Your task to perform on an android device: move a message to another label in the gmail app Image 0: 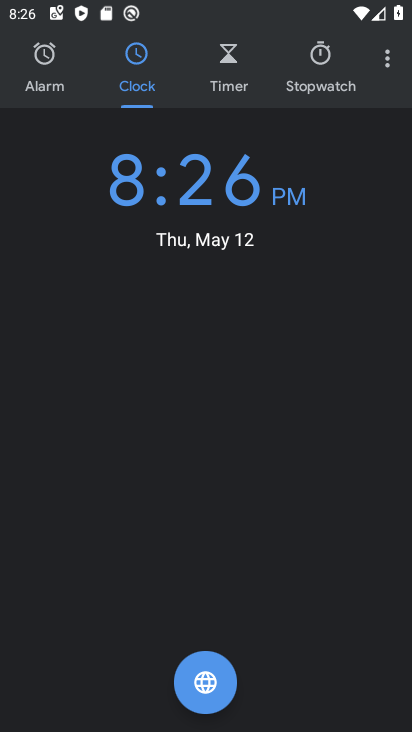
Step 0: press home button
Your task to perform on an android device: move a message to another label in the gmail app Image 1: 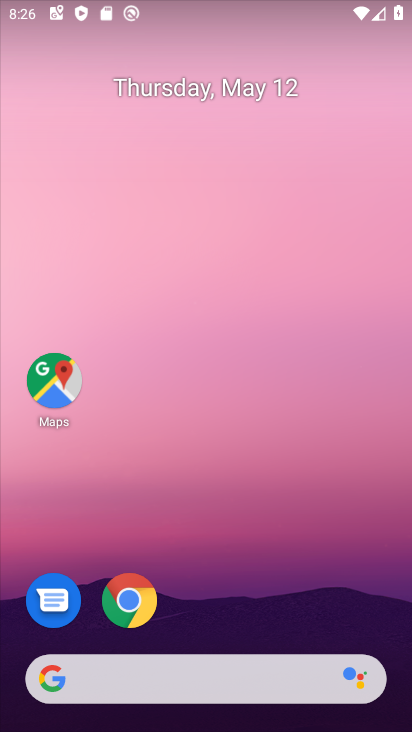
Step 1: drag from (294, 651) to (199, 213)
Your task to perform on an android device: move a message to another label in the gmail app Image 2: 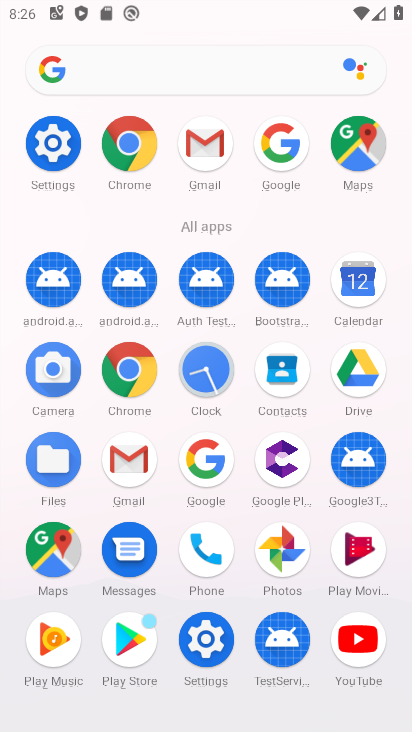
Step 2: click (213, 186)
Your task to perform on an android device: move a message to another label in the gmail app Image 3: 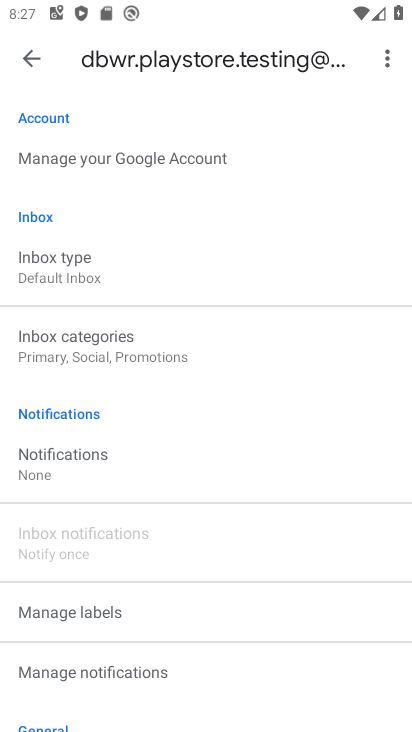
Step 3: click (37, 59)
Your task to perform on an android device: move a message to another label in the gmail app Image 4: 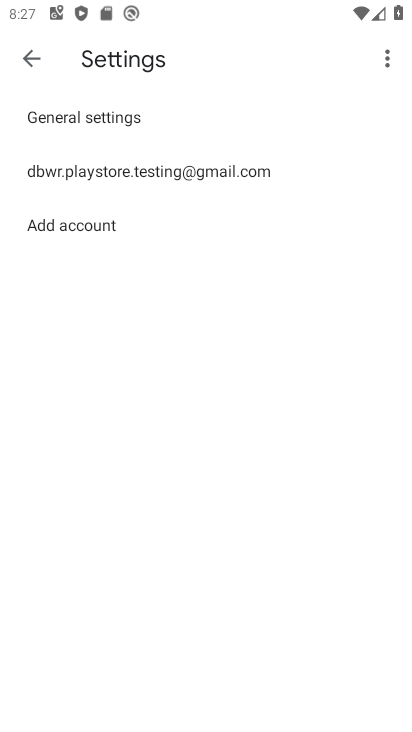
Step 4: click (25, 62)
Your task to perform on an android device: move a message to another label in the gmail app Image 5: 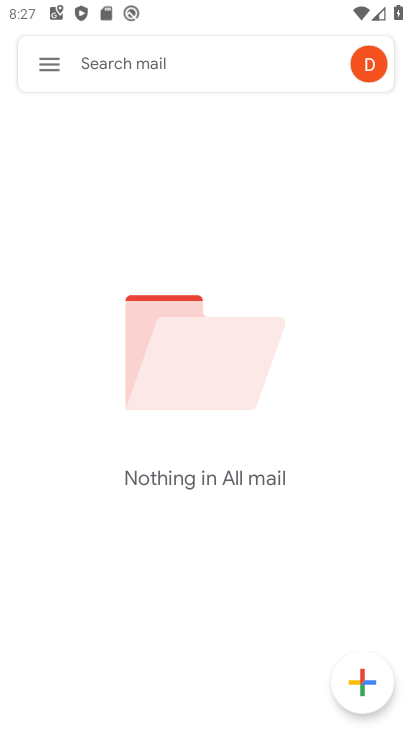
Step 5: task complete